Your task to perform on an android device: turn off priority inbox in the gmail app Image 0: 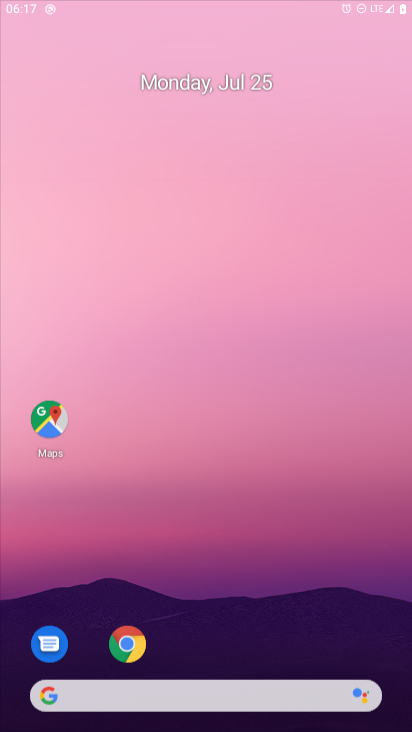
Step 0: press home button
Your task to perform on an android device: turn off priority inbox in the gmail app Image 1: 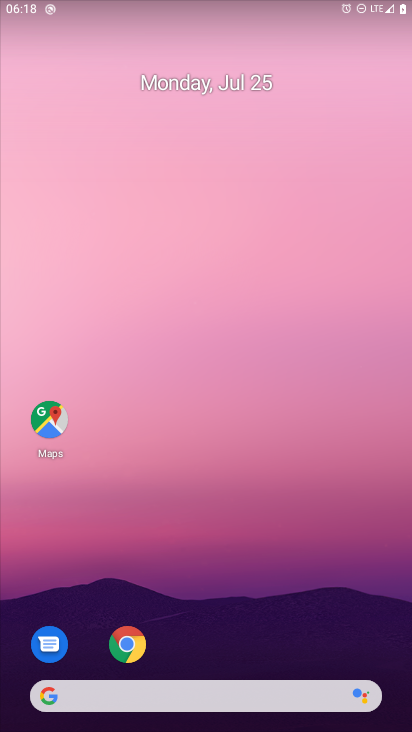
Step 1: drag from (227, 645) to (275, 139)
Your task to perform on an android device: turn off priority inbox in the gmail app Image 2: 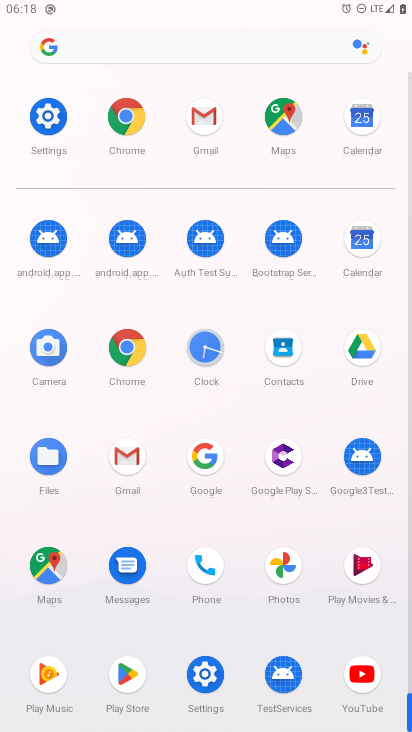
Step 2: click (205, 112)
Your task to perform on an android device: turn off priority inbox in the gmail app Image 3: 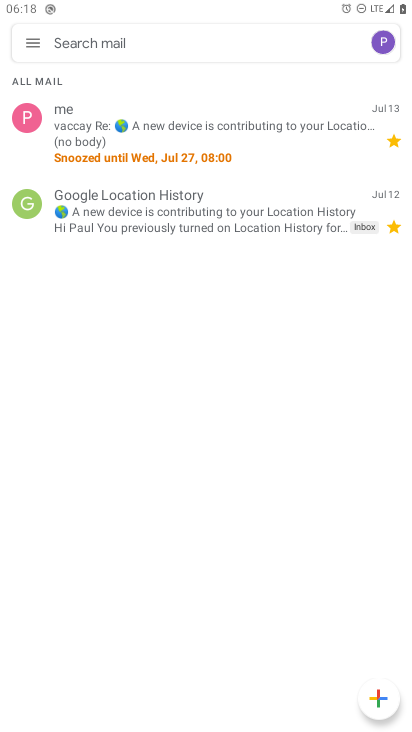
Step 3: click (32, 47)
Your task to perform on an android device: turn off priority inbox in the gmail app Image 4: 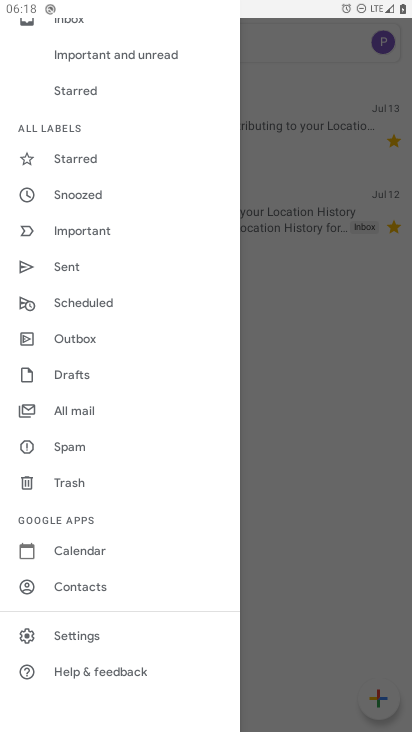
Step 4: click (93, 634)
Your task to perform on an android device: turn off priority inbox in the gmail app Image 5: 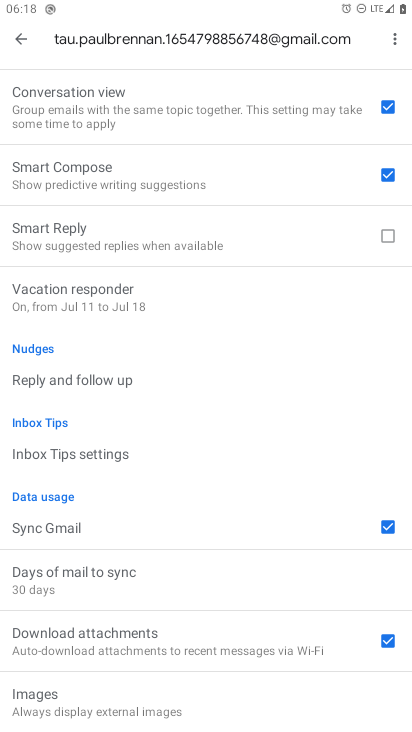
Step 5: drag from (191, 292) to (234, 712)
Your task to perform on an android device: turn off priority inbox in the gmail app Image 6: 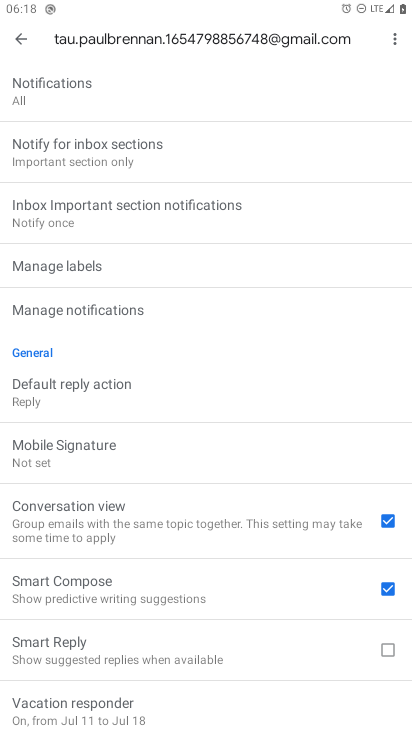
Step 6: drag from (245, 83) to (246, 481)
Your task to perform on an android device: turn off priority inbox in the gmail app Image 7: 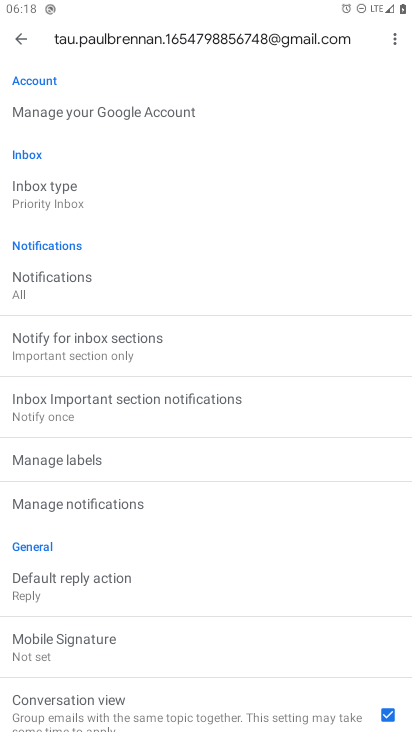
Step 7: click (46, 189)
Your task to perform on an android device: turn off priority inbox in the gmail app Image 8: 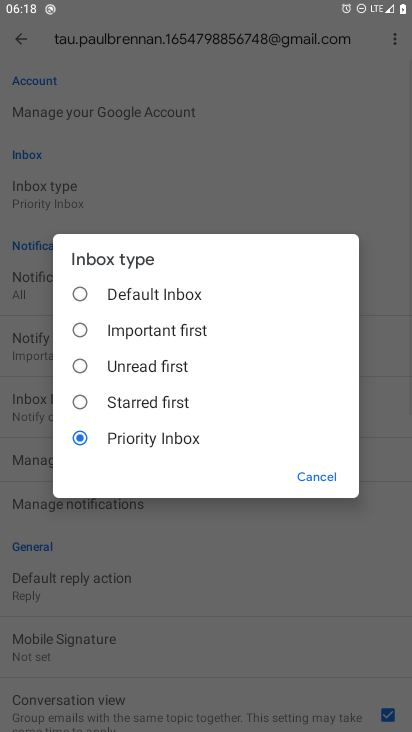
Step 8: click (82, 294)
Your task to perform on an android device: turn off priority inbox in the gmail app Image 9: 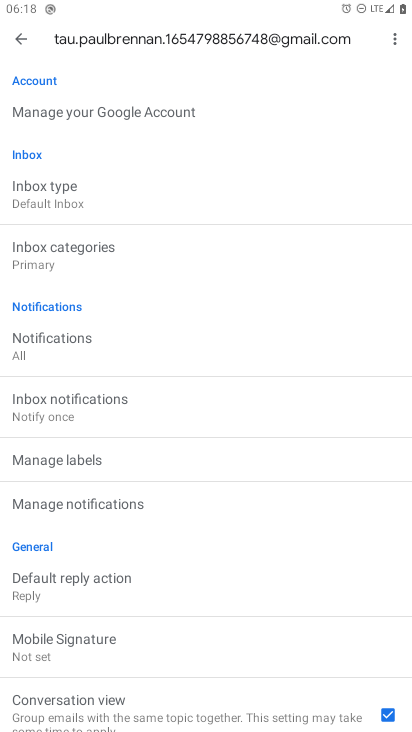
Step 9: task complete